Your task to perform on an android device: turn off wifi Image 0: 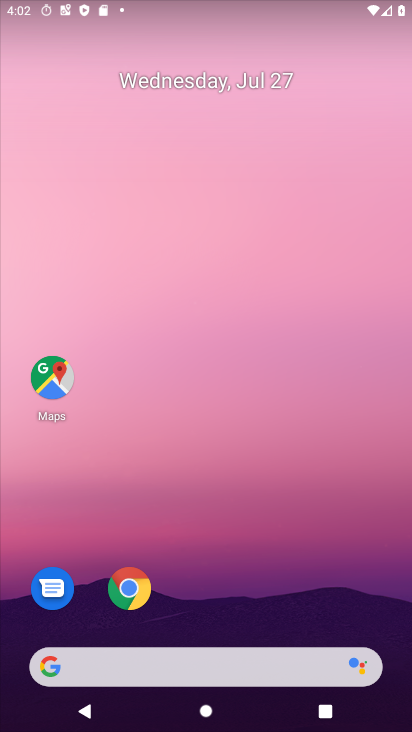
Step 0: press home button
Your task to perform on an android device: turn off wifi Image 1: 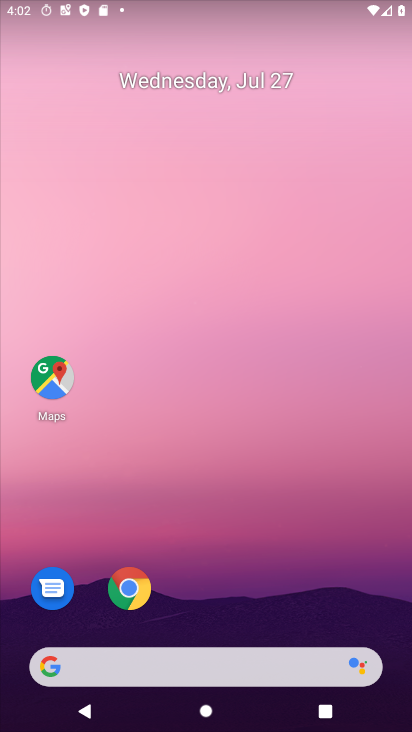
Step 1: click (169, 14)
Your task to perform on an android device: turn off wifi Image 2: 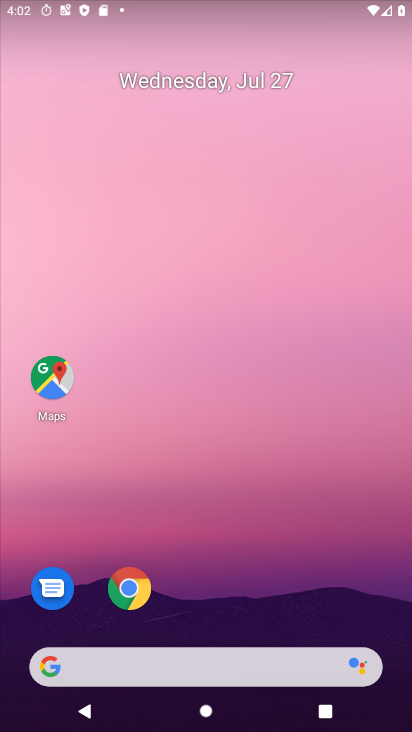
Step 2: click (169, 14)
Your task to perform on an android device: turn off wifi Image 3: 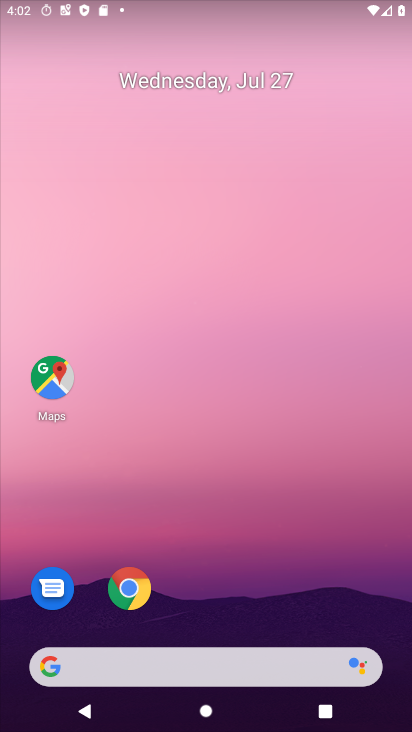
Step 3: drag from (230, 15) to (248, 400)
Your task to perform on an android device: turn off wifi Image 4: 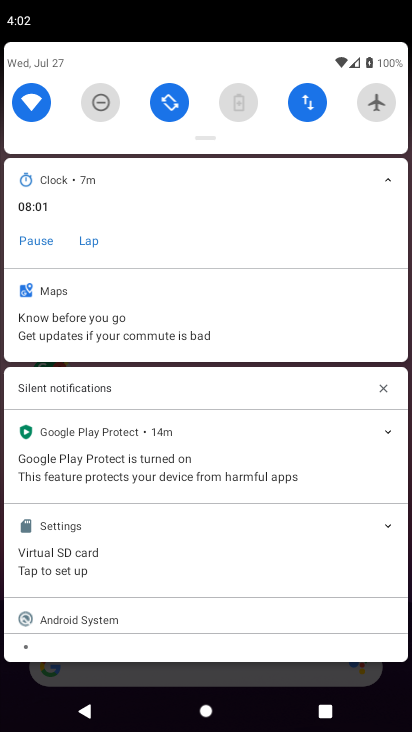
Step 4: click (39, 94)
Your task to perform on an android device: turn off wifi Image 5: 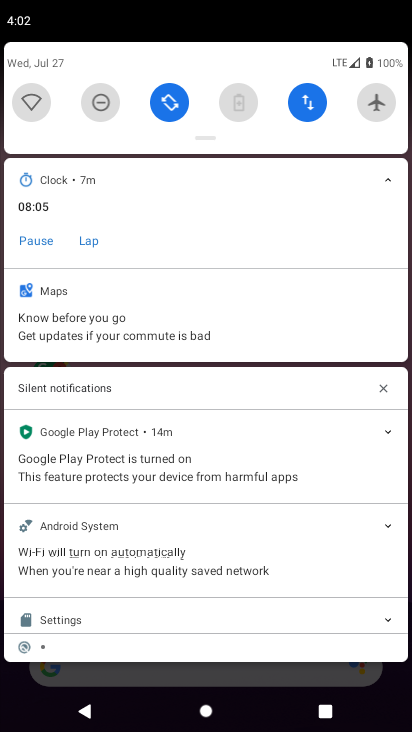
Step 5: task complete